Your task to perform on an android device: choose inbox layout in the gmail app Image 0: 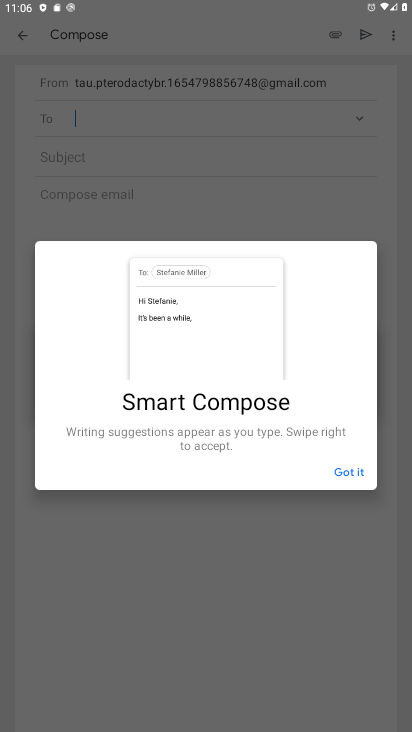
Step 0: press home button
Your task to perform on an android device: choose inbox layout in the gmail app Image 1: 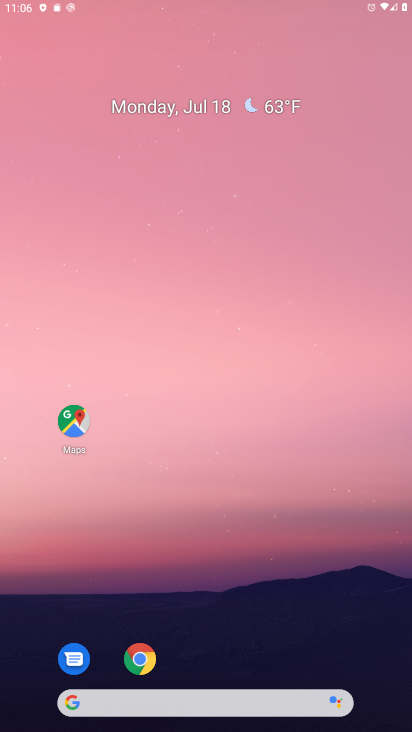
Step 1: drag from (204, 649) to (210, 66)
Your task to perform on an android device: choose inbox layout in the gmail app Image 2: 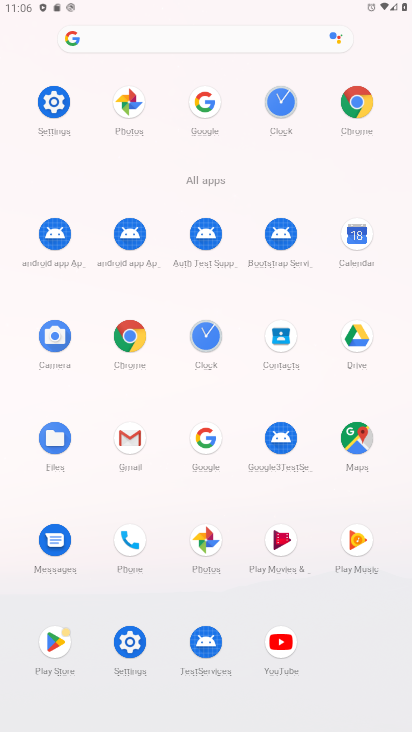
Step 2: click (134, 437)
Your task to perform on an android device: choose inbox layout in the gmail app Image 3: 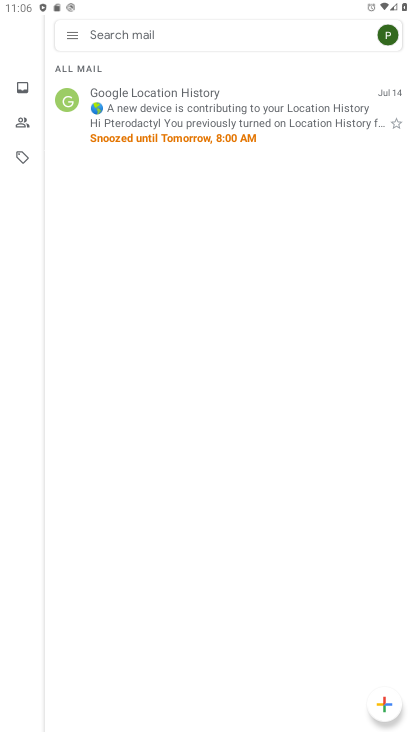
Step 3: click (70, 36)
Your task to perform on an android device: choose inbox layout in the gmail app Image 4: 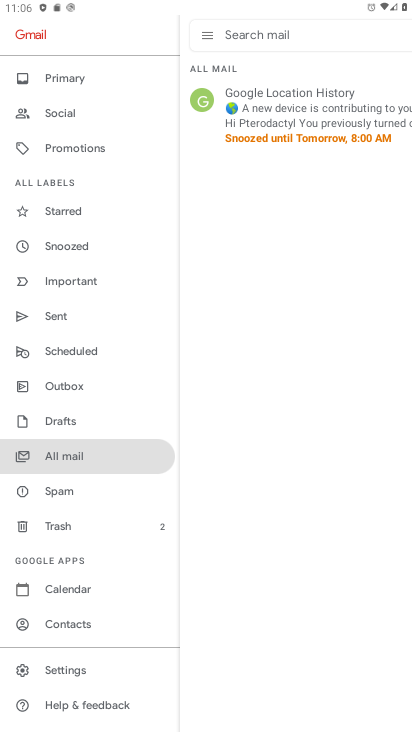
Step 4: click (78, 673)
Your task to perform on an android device: choose inbox layout in the gmail app Image 5: 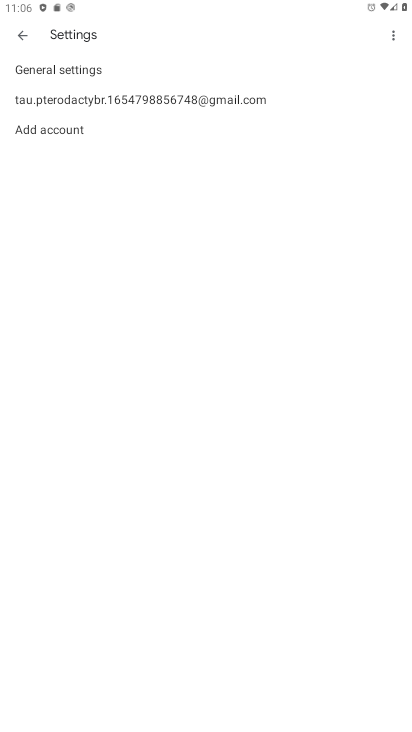
Step 5: click (147, 99)
Your task to perform on an android device: choose inbox layout in the gmail app Image 6: 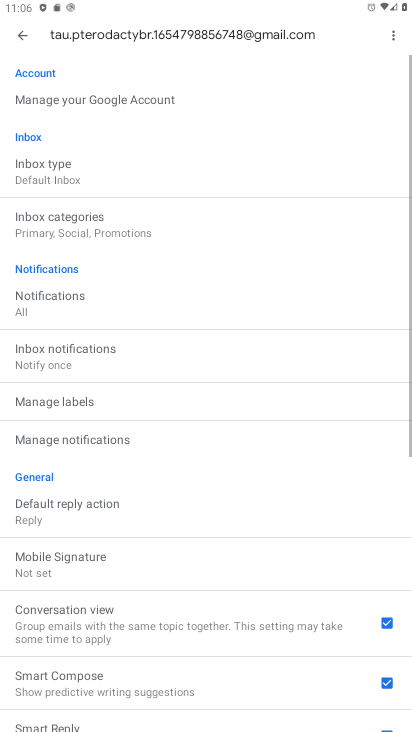
Step 6: click (64, 182)
Your task to perform on an android device: choose inbox layout in the gmail app Image 7: 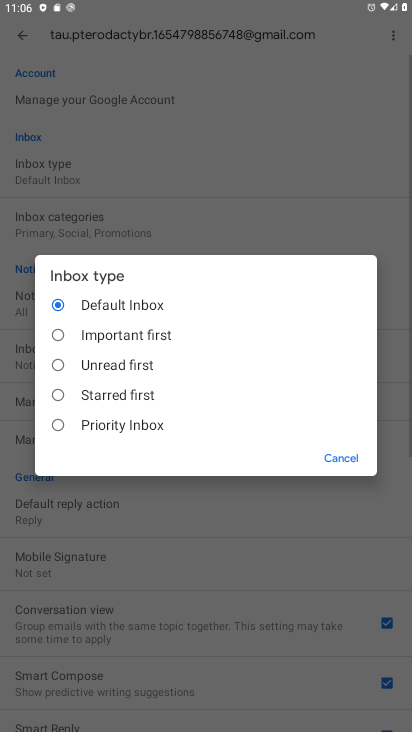
Step 7: click (60, 367)
Your task to perform on an android device: choose inbox layout in the gmail app Image 8: 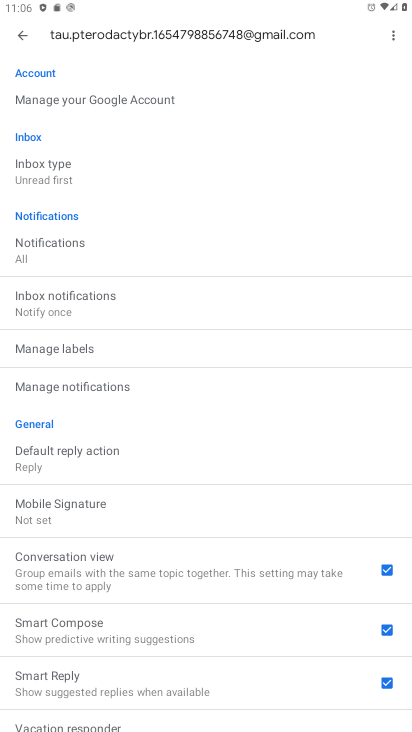
Step 8: task complete